Your task to perform on an android device: Is it going to rain tomorrow? Image 0: 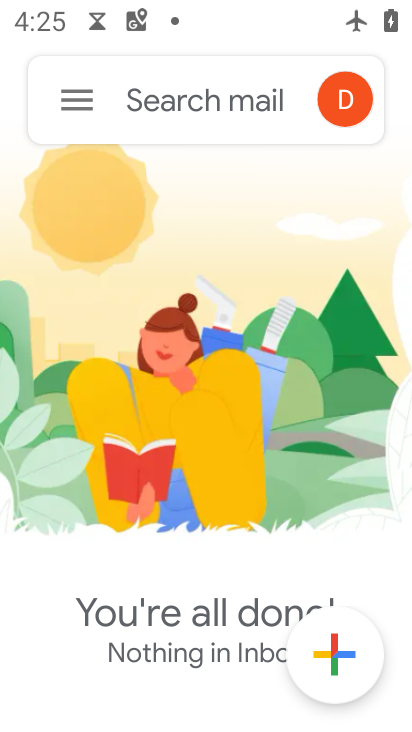
Step 0: press home button
Your task to perform on an android device: Is it going to rain tomorrow? Image 1: 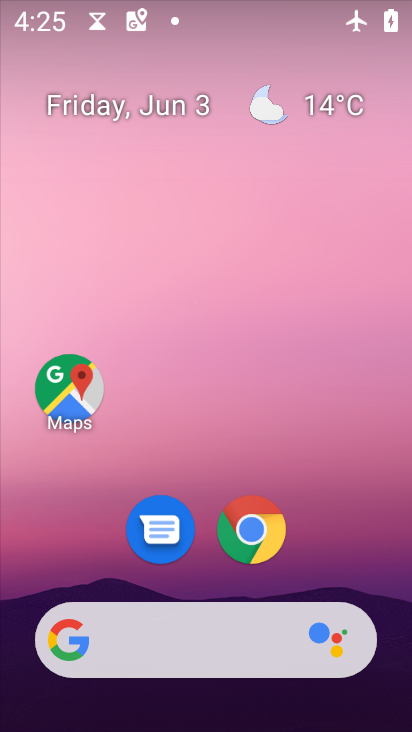
Step 1: click (327, 120)
Your task to perform on an android device: Is it going to rain tomorrow? Image 2: 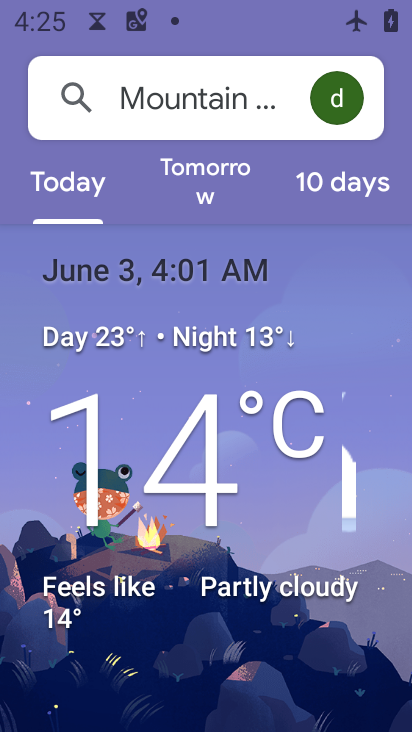
Step 2: click (233, 166)
Your task to perform on an android device: Is it going to rain tomorrow? Image 3: 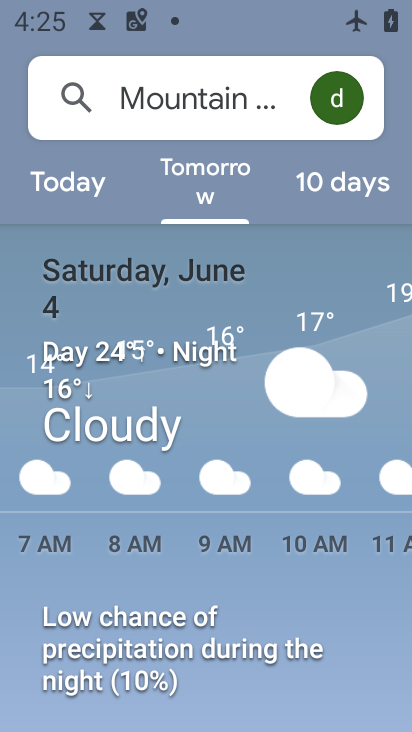
Step 3: task complete